Your task to perform on an android device: turn off improve location accuracy Image 0: 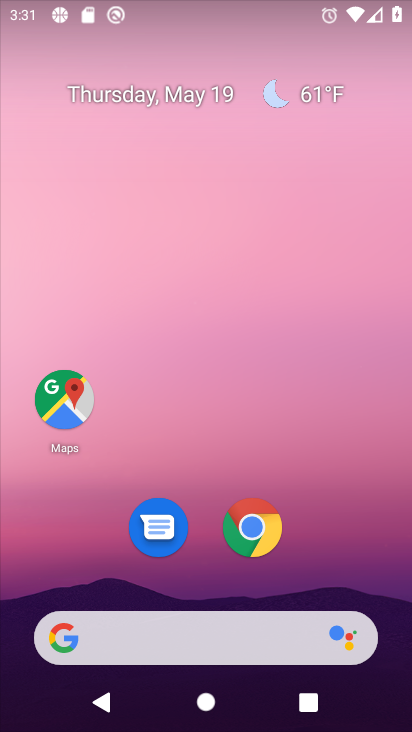
Step 0: drag from (190, 568) to (252, 120)
Your task to perform on an android device: turn off improve location accuracy Image 1: 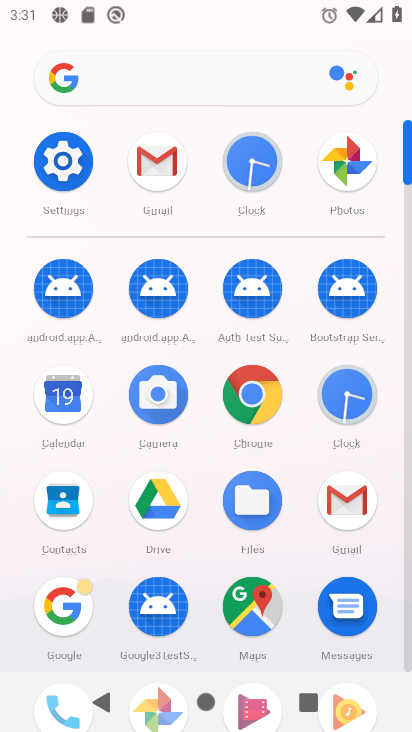
Step 1: click (61, 152)
Your task to perform on an android device: turn off improve location accuracy Image 2: 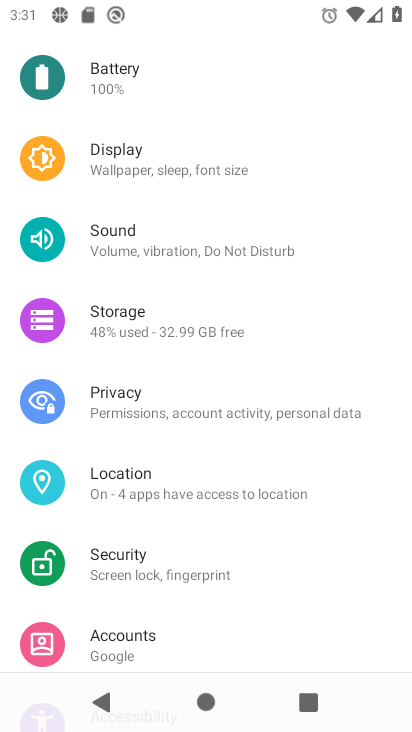
Step 2: click (138, 474)
Your task to perform on an android device: turn off improve location accuracy Image 3: 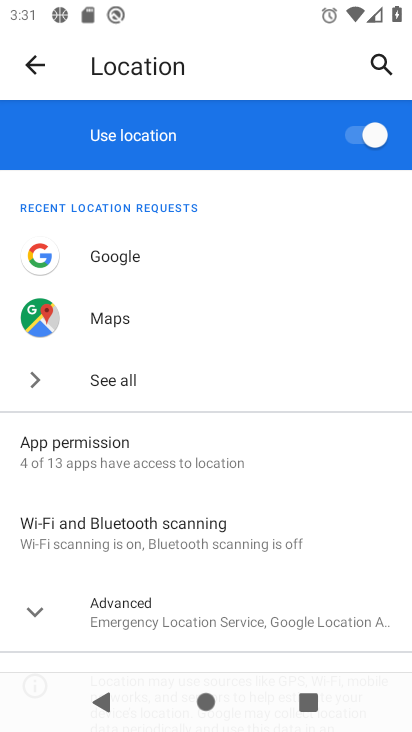
Step 3: click (153, 606)
Your task to perform on an android device: turn off improve location accuracy Image 4: 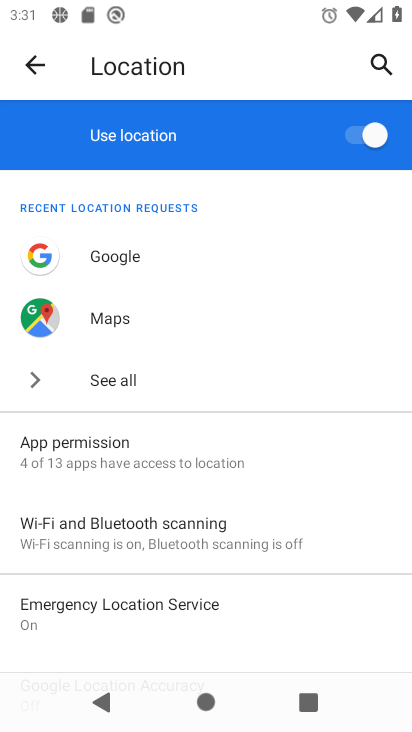
Step 4: drag from (153, 606) to (203, 282)
Your task to perform on an android device: turn off improve location accuracy Image 5: 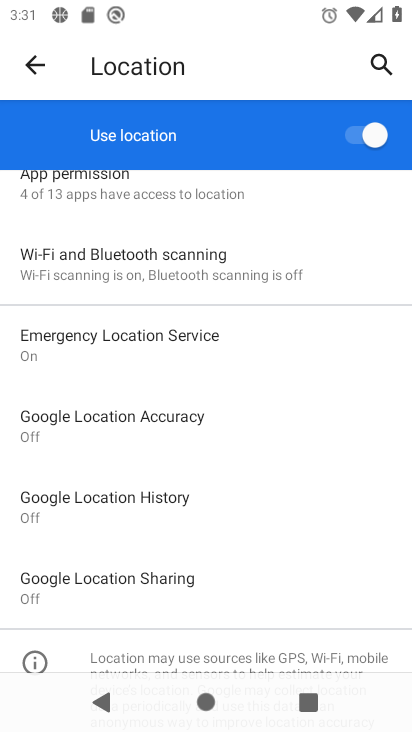
Step 5: click (131, 428)
Your task to perform on an android device: turn off improve location accuracy Image 6: 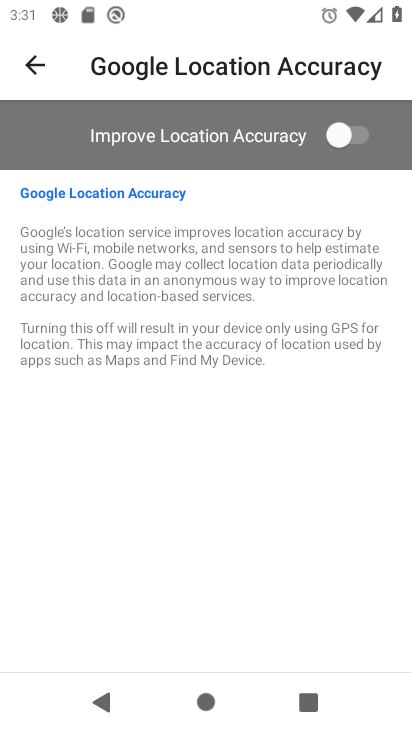
Step 6: task complete